Your task to perform on an android device: See recent photos Image 0: 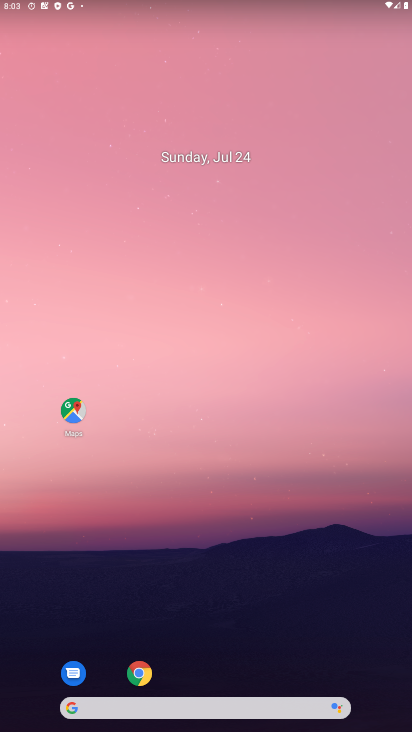
Step 0: drag from (29, 693) to (134, 222)
Your task to perform on an android device: See recent photos Image 1: 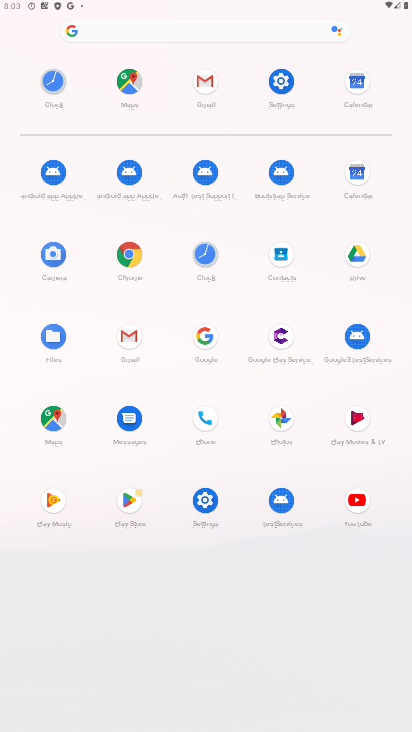
Step 1: click (272, 423)
Your task to perform on an android device: See recent photos Image 2: 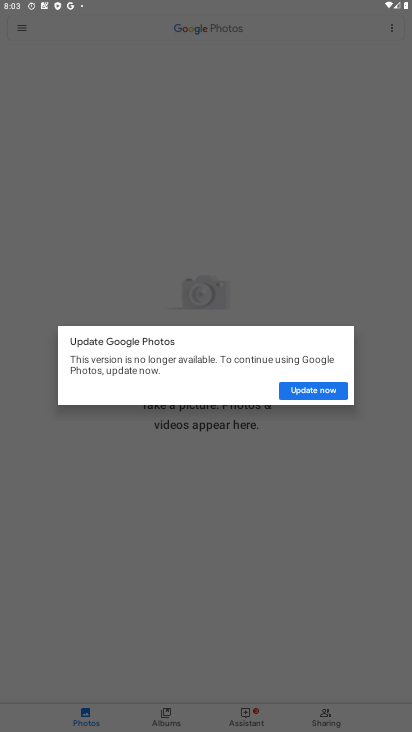
Step 2: click (290, 387)
Your task to perform on an android device: See recent photos Image 3: 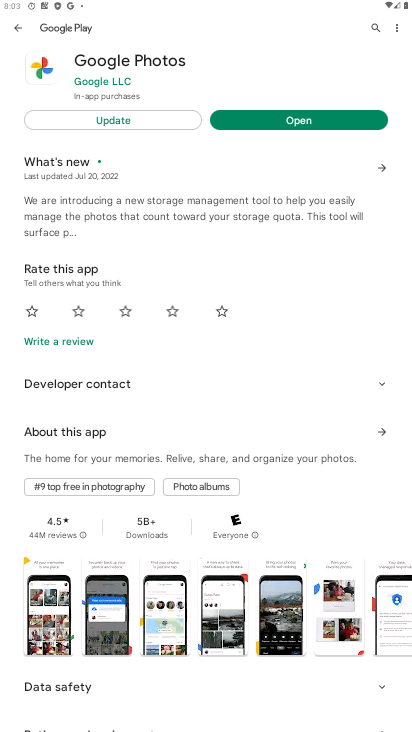
Step 3: click (272, 116)
Your task to perform on an android device: See recent photos Image 4: 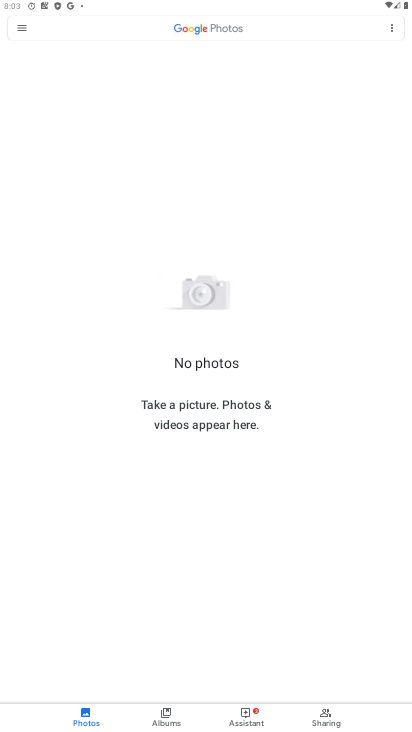
Step 4: task complete